Your task to perform on an android device: toggle show notifications on the lock screen Image 0: 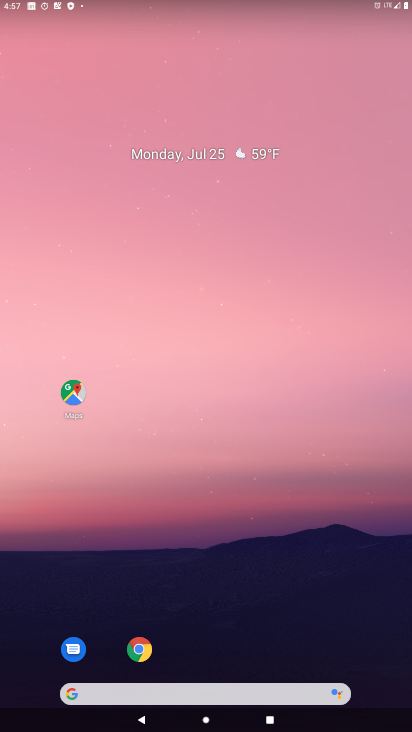
Step 0: drag from (276, 638) to (122, 1)
Your task to perform on an android device: toggle show notifications on the lock screen Image 1: 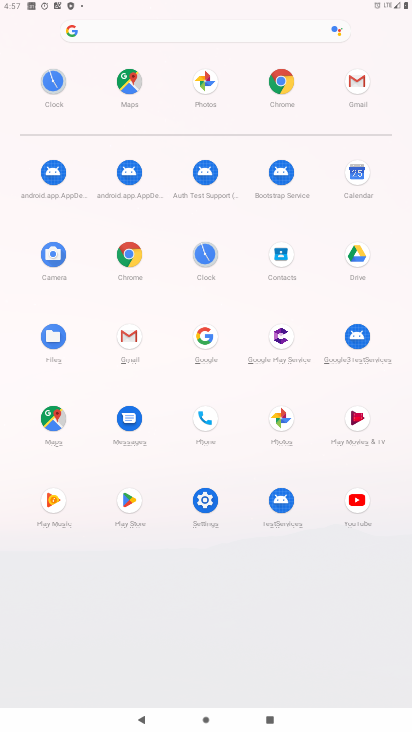
Step 1: click (205, 507)
Your task to perform on an android device: toggle show notifications on the lock screen Image 2: 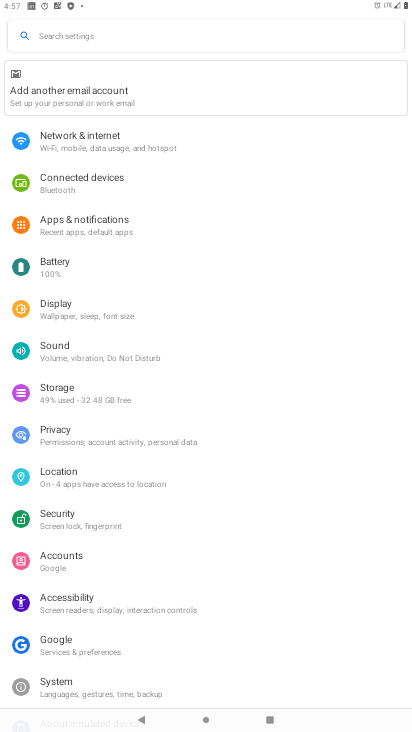
Step 2: click (128, 225)
Your task to perform on an android device: toggle show notifications on the lock screen Image 3: 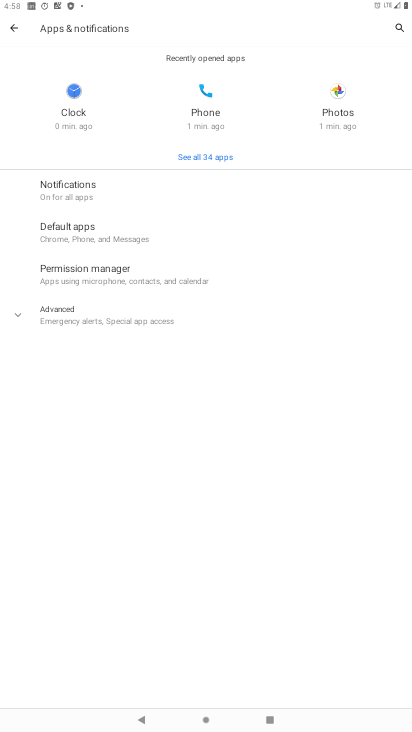
Step 3: click (182, 184)
Your task to perform on an android device: toggle show notifications on the lock screen Image 4: 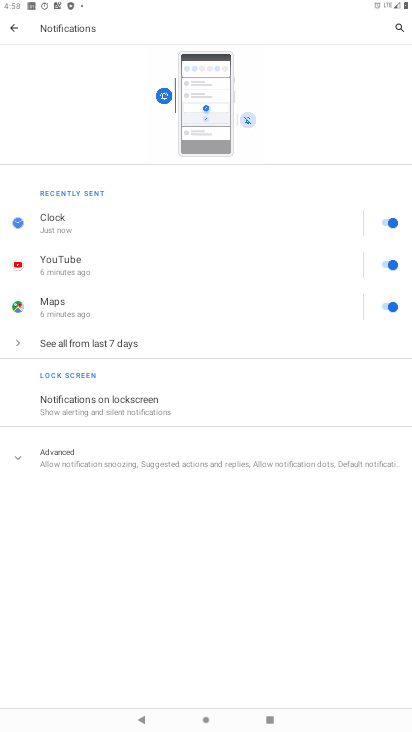
Step 4: click (111, 404)
Your task to perform on an android device: toggle show notifications on the lock screen Image 5: 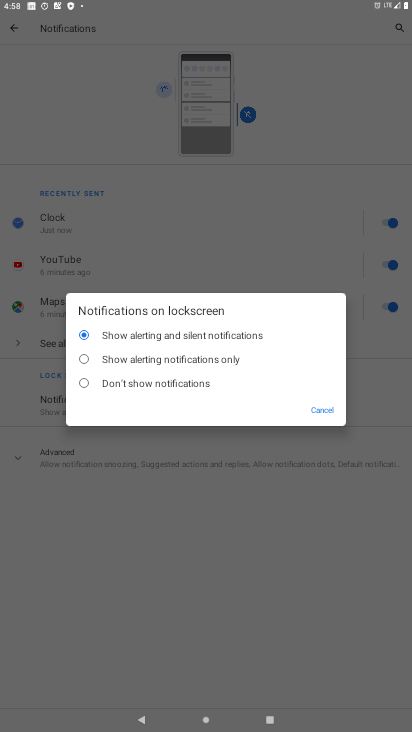
Step 5: click (193, 357)
Your task to perform on an android device: toggle show notifications on the lock screen Image 6: 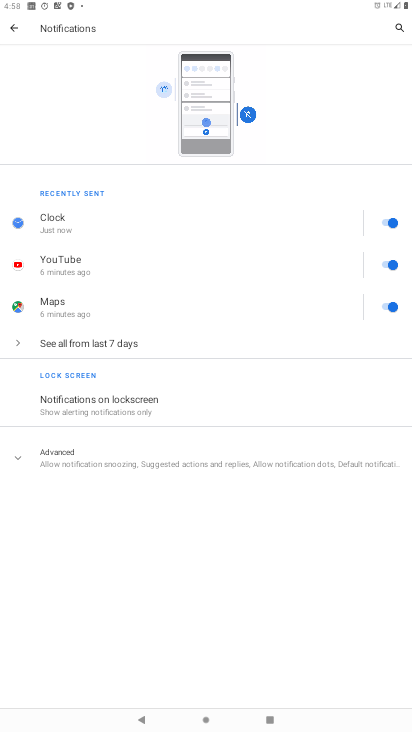
Step 6: task complete